Your task to perform on an android device: change your default location settings in chrome Image 0: 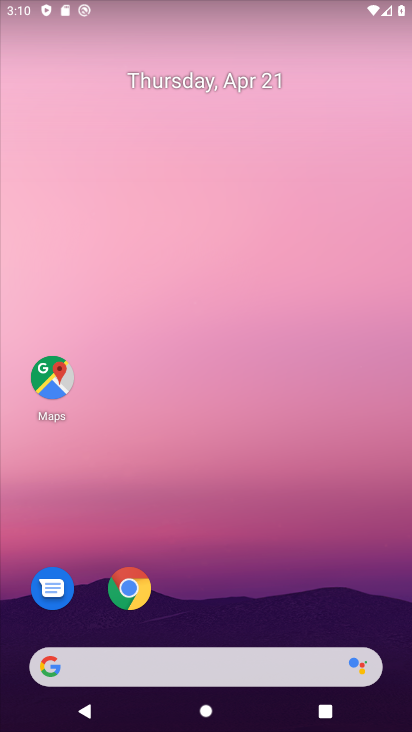
Step 0: drag from (155, 662) to (170, 85)
Your task to perform on an android device: change your default location settings in chrome Image 1: 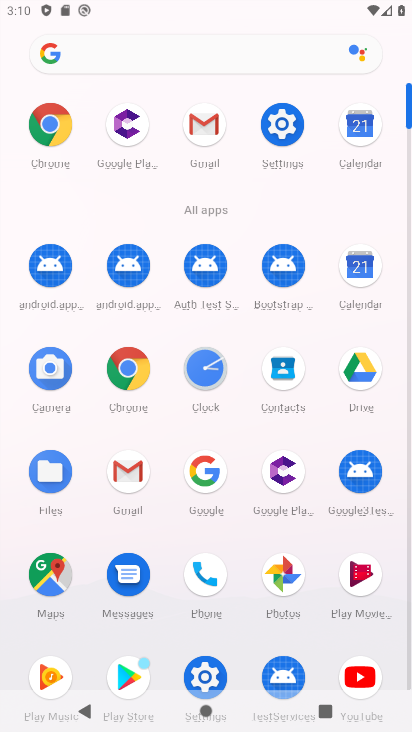
Step 1: click (126, 364)
Your task to perform on an android device: change your default location settings in chrome Image 2: 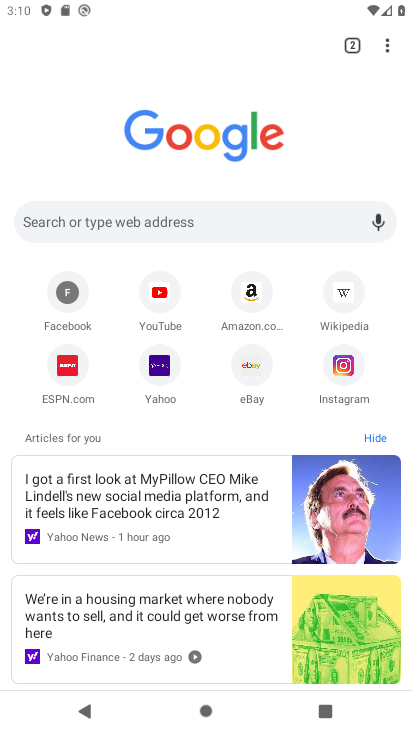
Step 2: drag from (384, 41) to (266, 389)
Your task to perform on an android device: change your default location settings in chrome Image 3: 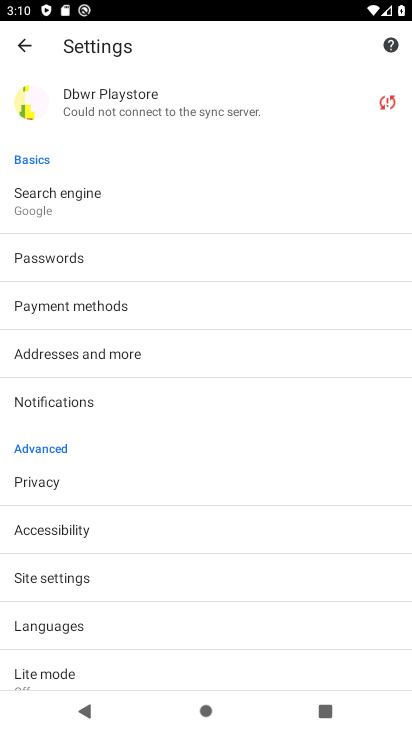
Step 3: drag from (101, 538) to (157, 8)
Your task to perform on an android device: change your default location settings in chrome Image 4: 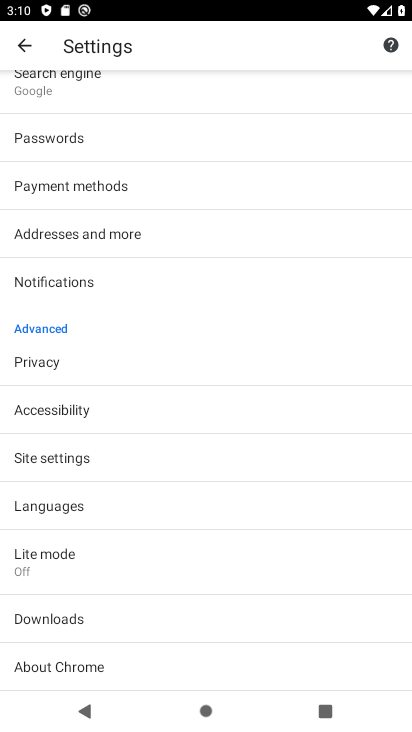
Step 4: click (85, 464)
Your task to perform on an android device: change your default location settings in chrome Image 5: 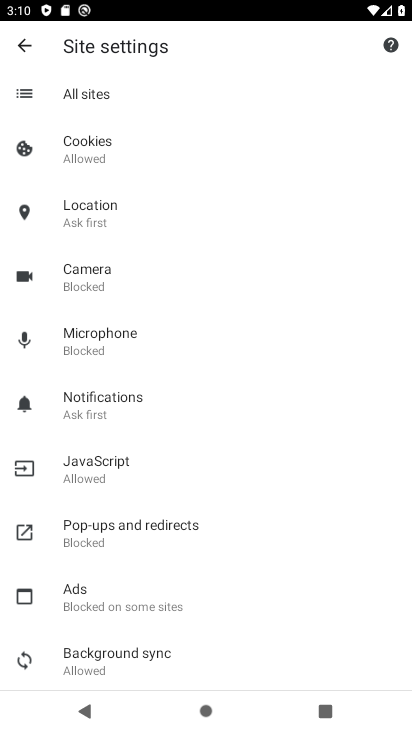
Step 5: click (112, 193)
Your task to perform on an android device: change your default location settings in chrome Image 6: 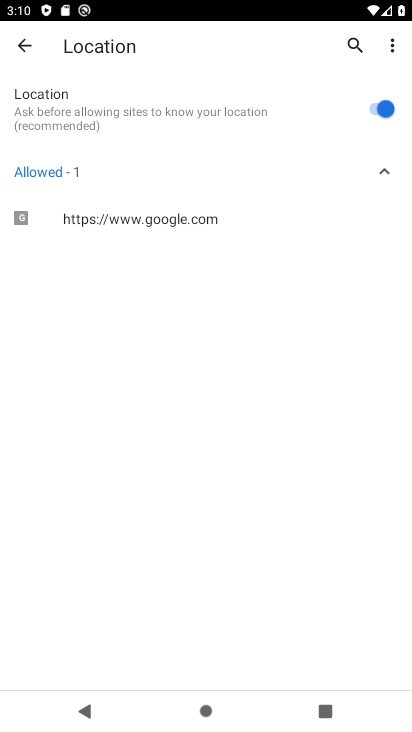
Step 6: click (373, 114)
Your task to perform on an android device: change your default location settings in chrome Image 7: 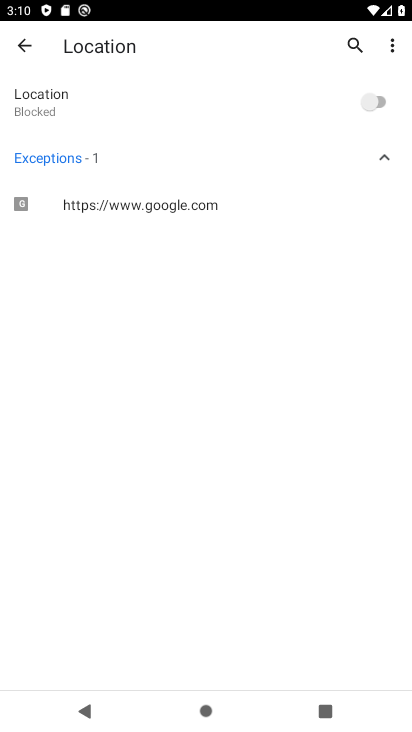
Step 7: task complete